Your task to perform on an android device: open a new tab in the chrome app Image 0: 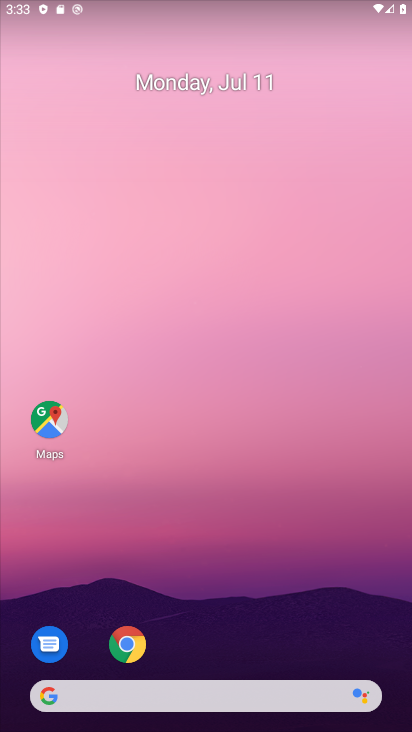
Step 0: click (127, 647)
Your task to perform on an android device: open a new tab in the chrome app Image 1: 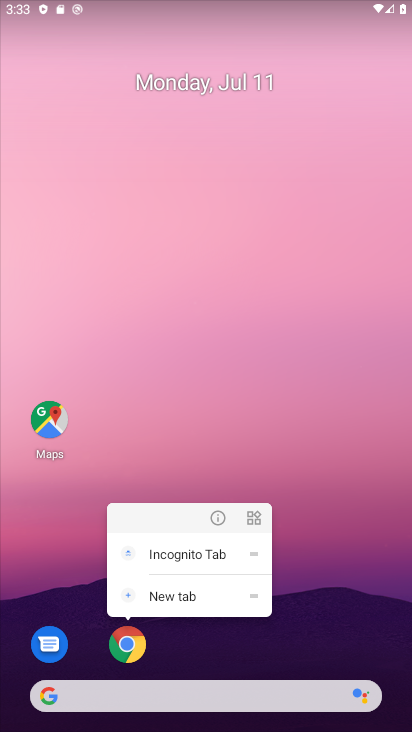
Step 1: click (291, 319)
Your task to perform on an android device: open a new tab in the chrome app Image 2: 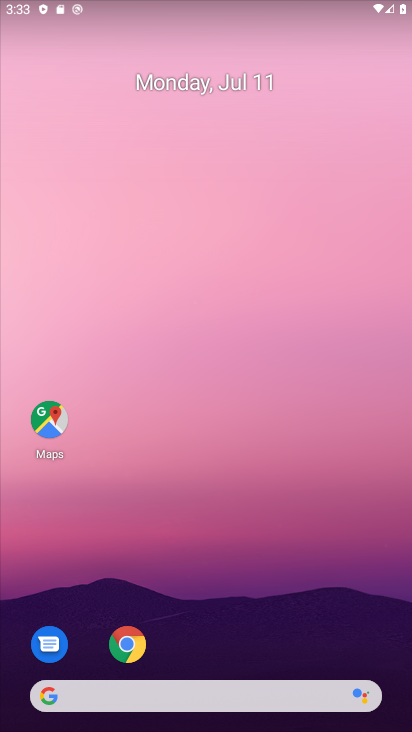
Step 2: click (121, 646)
Your task to perform on an android device: open a new tab in the chrome app Image 3: 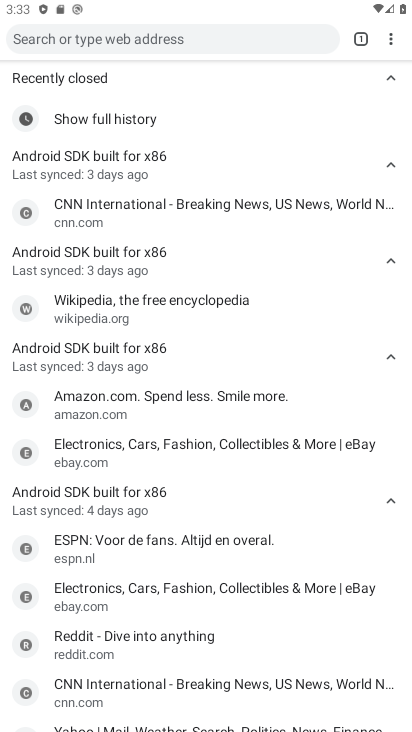
Step 3: click (358, 35)
Your task to perform on an android device: open a new tab in the chrome app Image 4: 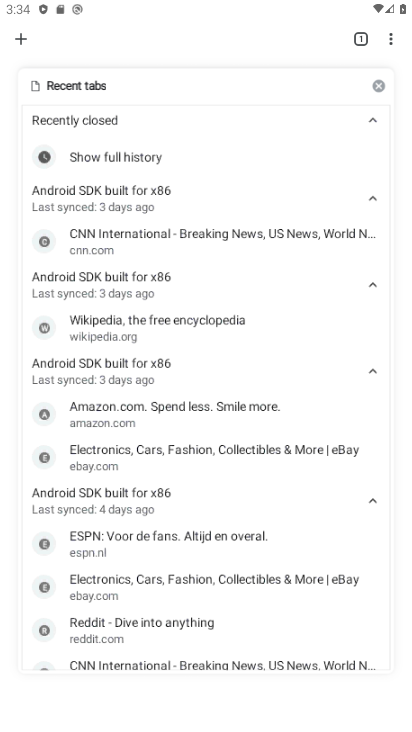
Step 4: click (22, 39)
Your task to perform on an android device: open a new tab in the chrome app Image 5: 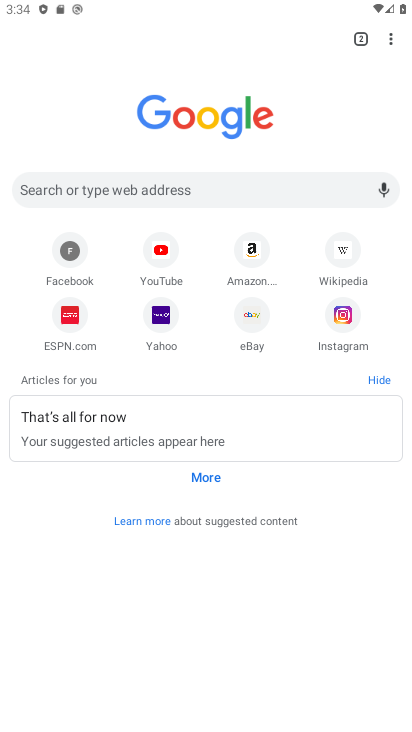
Step 5: task complete